Your task to perform on an android device: open a bookmark in the chrome app Image 0: 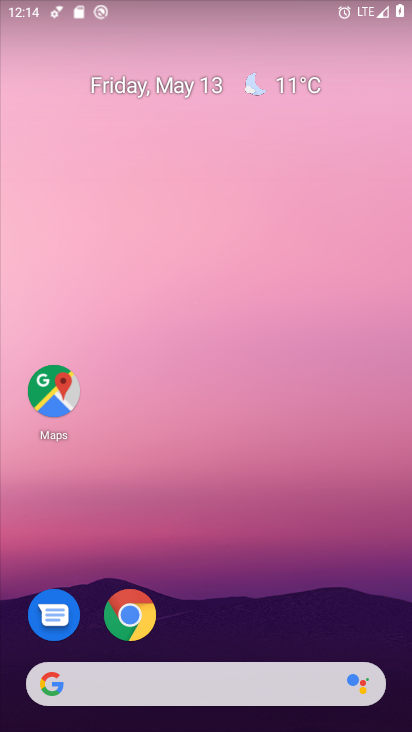
Step 0: click (143, 611)
Your task to perform on an android device: open a bookmark in the chrome app Image 1: 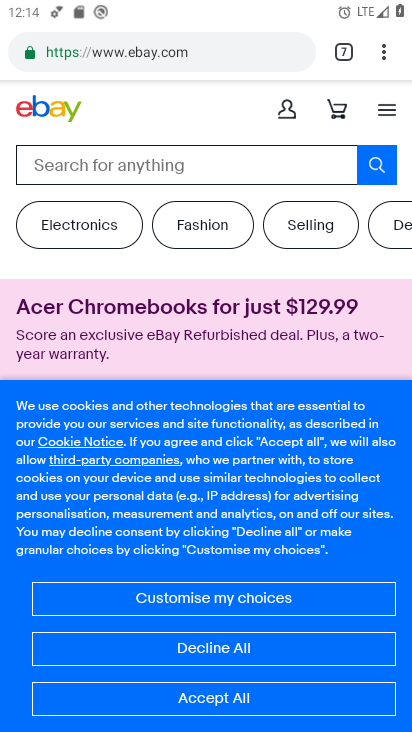
Step 1: click (382, 54)
Your task to perform on an android device: open a bookmark in the chrome app Image 2: 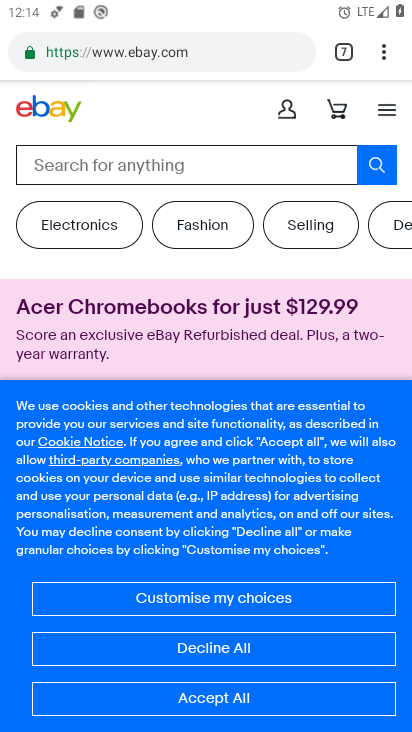
Step 2: click (382, 56)
Your task to perform on an android device: open a bookmark in the chrome app Image 3: 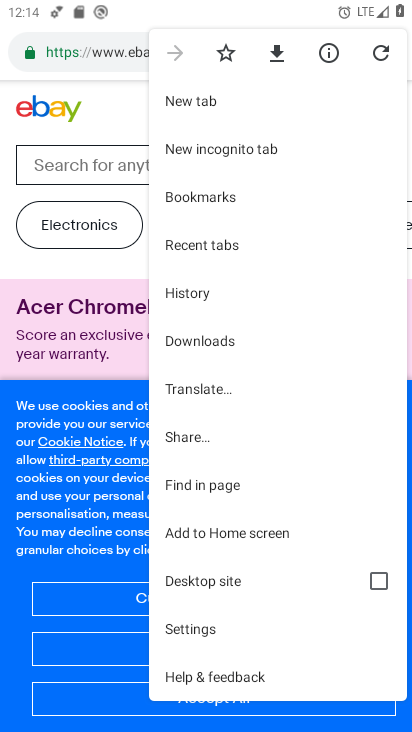
Step 3: click (248, 193)
Your task to perform on an android device: open a bookmark in the chrome app Image 4: 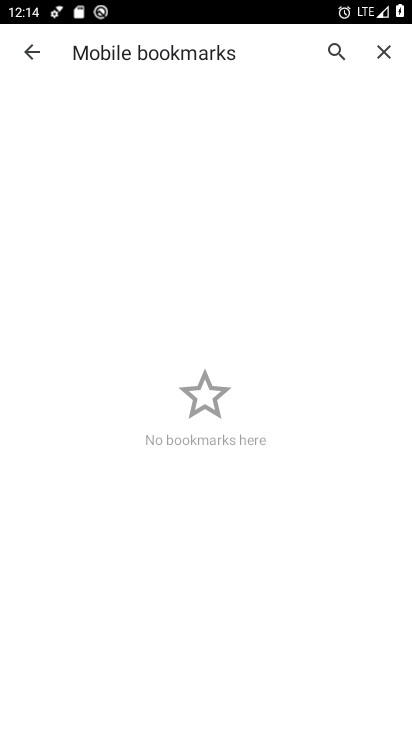
Step 4: task complete